Your task to perform on an android device: Check the weather Image 0: 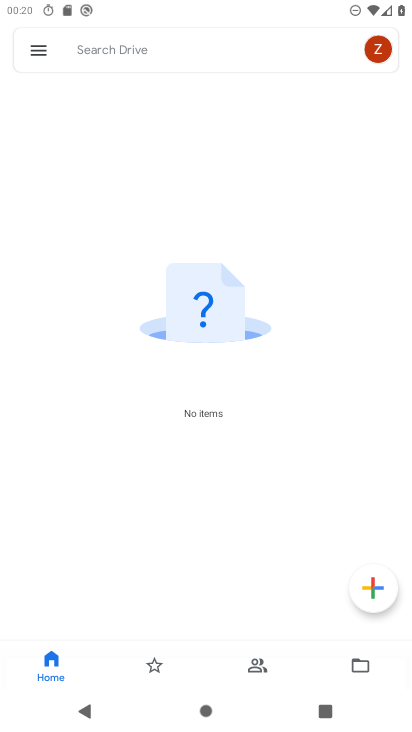
Step 0: press home button
Your task to perform on an android device: Check the weather Image 1: 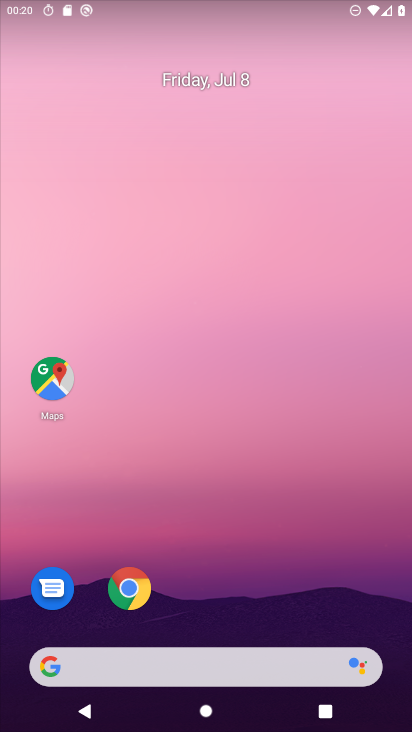
Step 1: drag from (268, 594) to (196, 141)
Your task to perform on an android device: Check the weather Image 2: 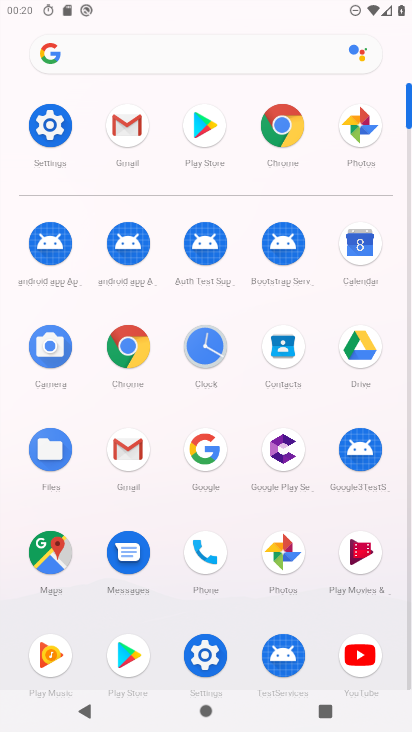
Step 2: click (281, 123)
Your task to perform on an android device: Check the weather Image 3: 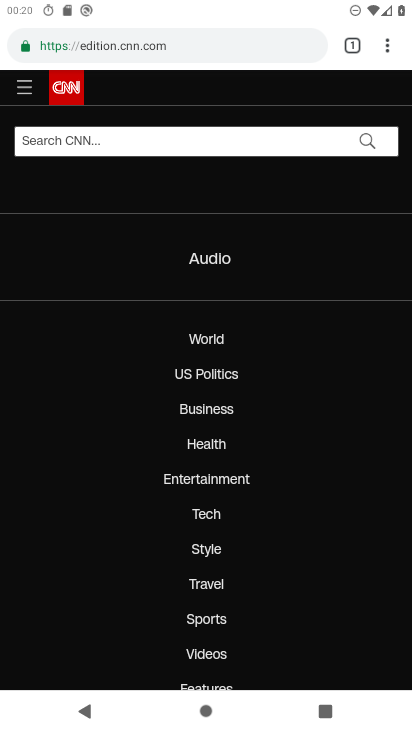
Step 3: click (199, 46)
Your task to perform on an android device: Check the weather Image 4: 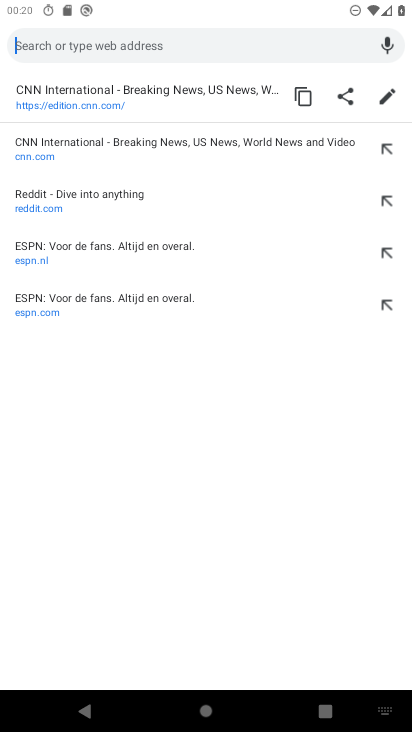
Step 4: type "weather"
Your task to perform on an android device: Check the weather Image 5: 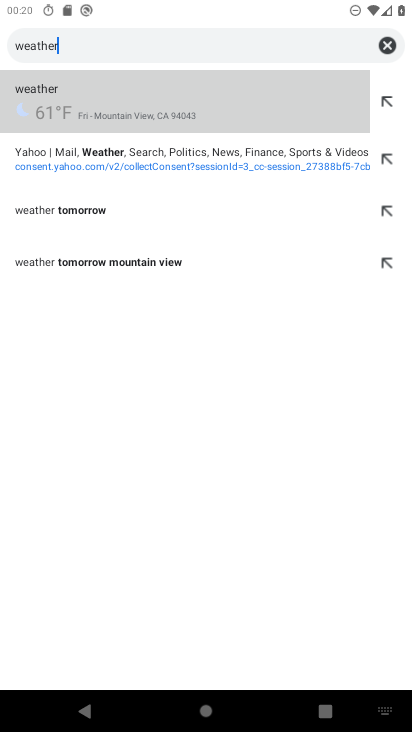
Step 5: press enter
Your task to perform on an android device: Check the weather Image 6: 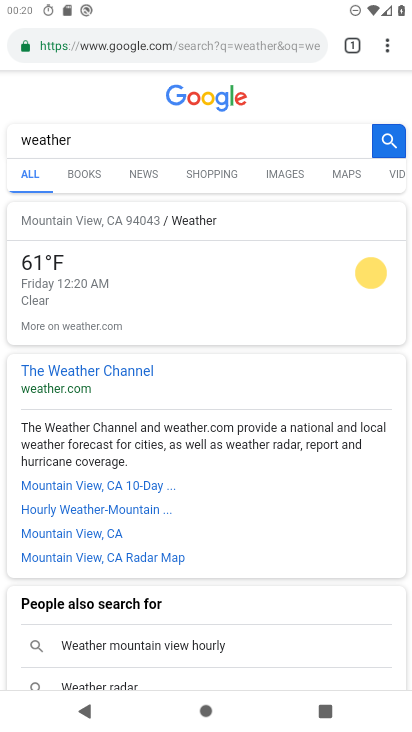
Step 6: task complete